Your task to perform on an android device: When is my next meeting? Image 0: 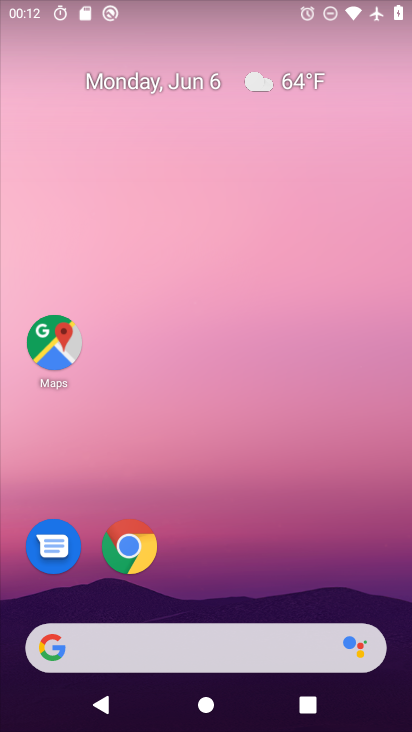
Step 0: drag from (163, 565) to (250, 128)
Your task to perform on an android device: When is my next meeting? Image 1: 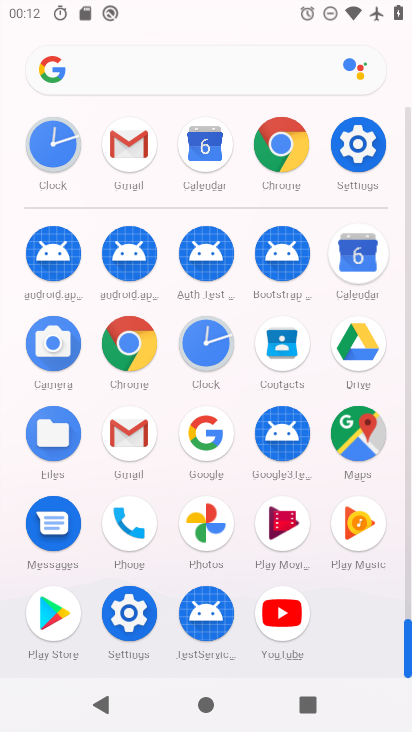
Step 1: drag from (190, 612) to (336, 37)
Your task to perform on an android device: When is my next meeting? Image 2: 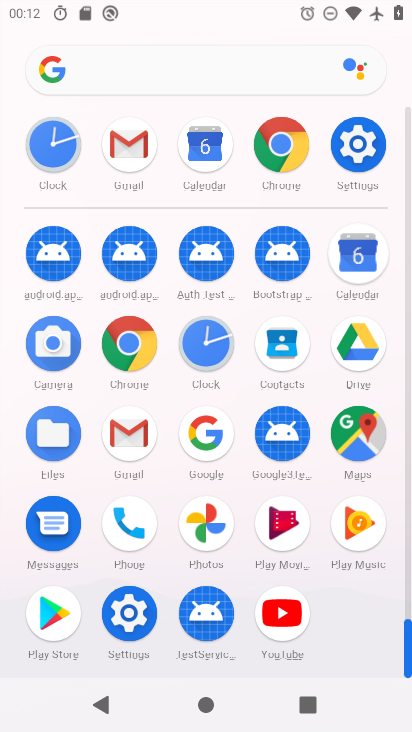
Step 2: click (350, 259)
Your task to perform on an android device: When is my next meeting? Image 3: 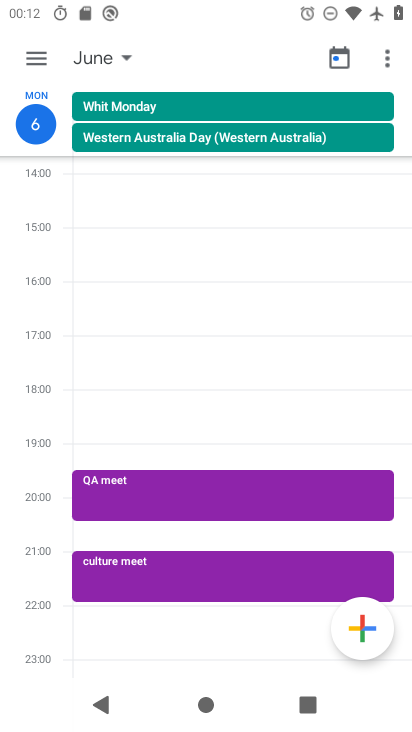
Step 3: click (106, 44)
Your task to perform on an android device: When is my next meeting? Image 4: 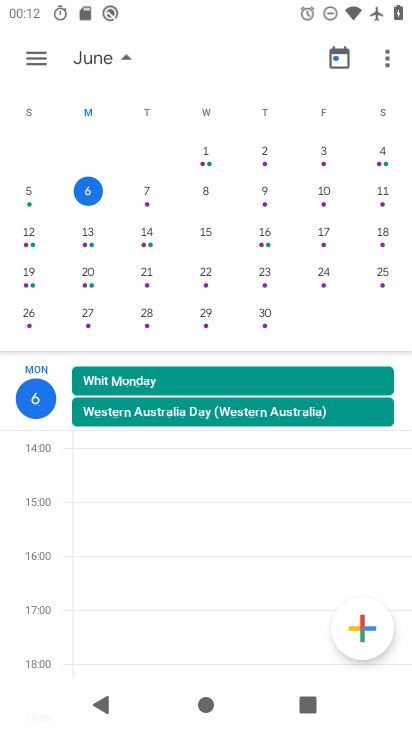
Step 4: click (83, 180)
Your task to perform on an android device: When is my next meeting? Image 5: 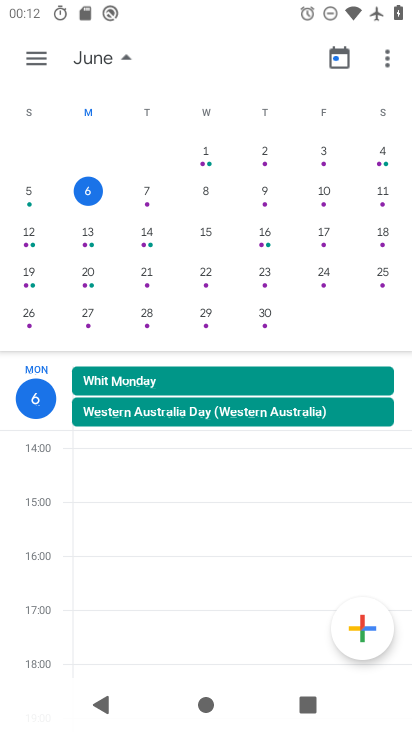
Step 5: drag from (173, 455) to (216, 272)
Your task to perform on an android device: When is my next meeting? Image 6: 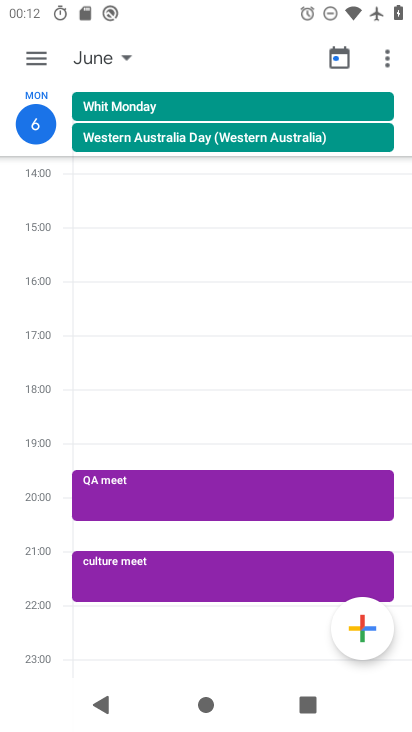
Step 6: click (166, 507)
Your task to perform on an android device: When is my next meeting? Image 7: 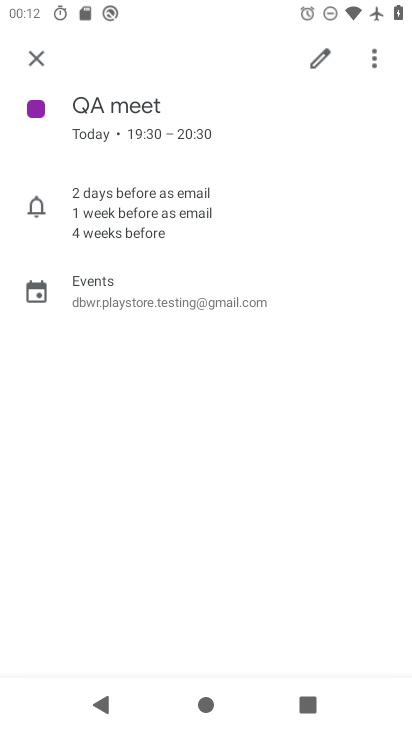
Step 7: task complete